Your task to perform on an android device: choose inbox layout in the gmail app Image 0: 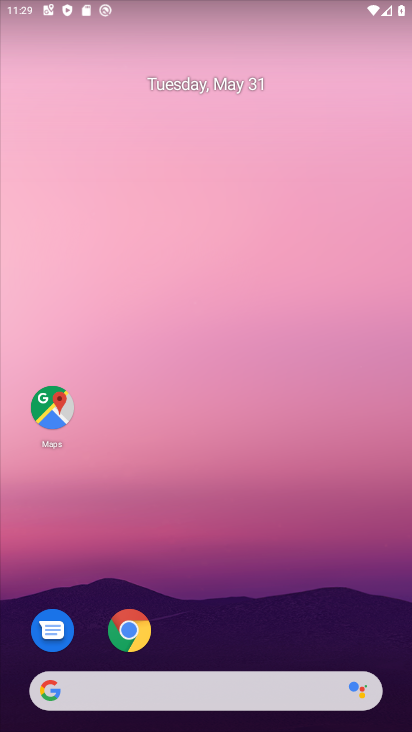
Step 0: drag from (237, 595) to (220, 73)
Your task to perform on an android device: choose inbox layout in the gmail app Image 1: 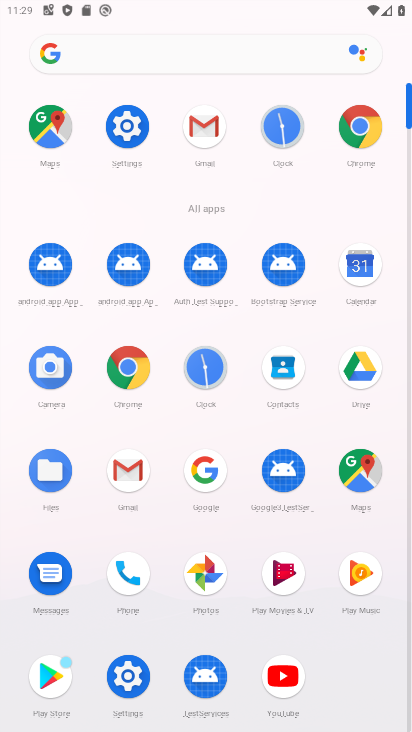
Step 1: click (197, 116)
Your task to perform on an android device: choose inbox layout in the gmail app Image 2: 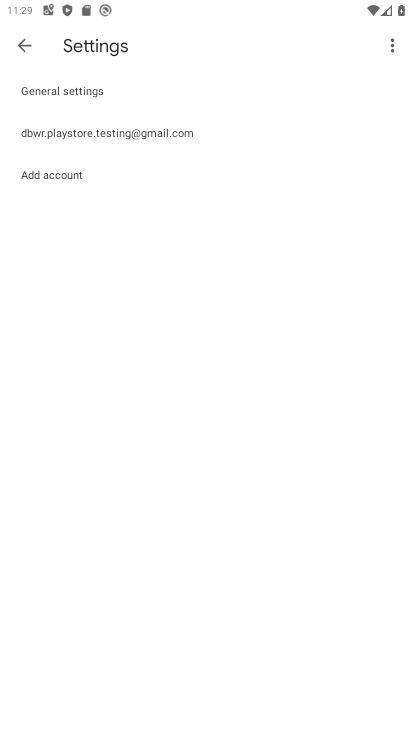
Step 2: click (81, 127)
Your task to perform on an android device: choose inbox layout in the gmail app Image 3: 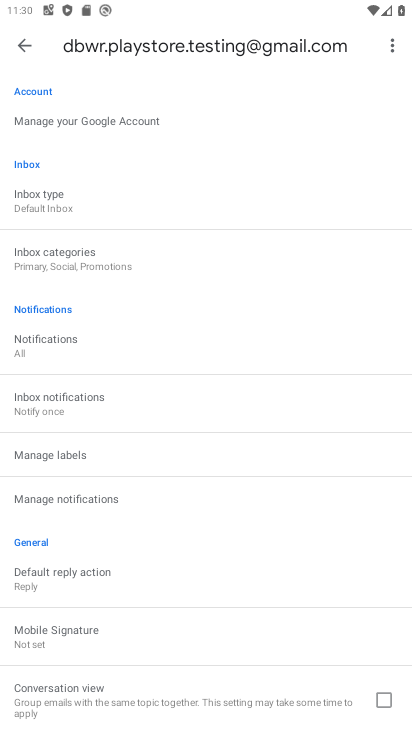
Step 3: click (52, 204)
Your task to perform on an android device: choose inbox layout in the gmail app Image 4: 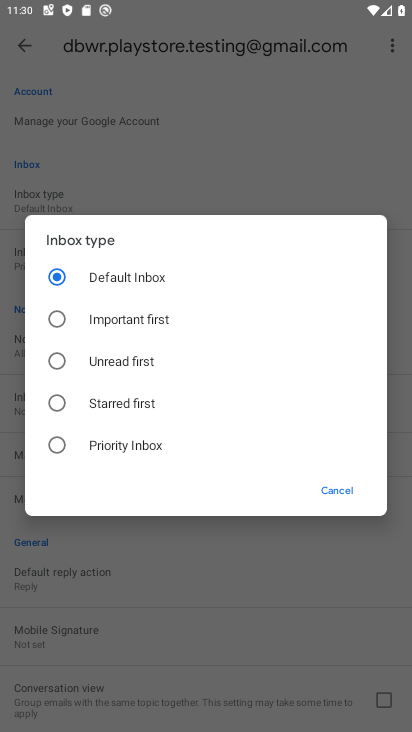
Step 4: task complete